Your task to perform on an android device: toggle priority inbox in the gmail app Image 0: 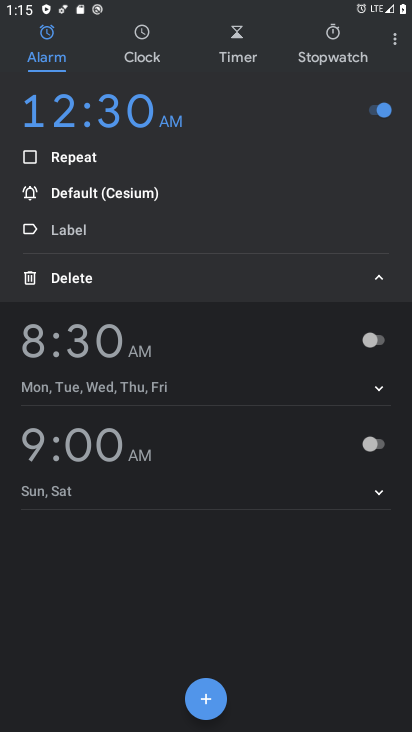
Step 0: press home button
Your task to perform on an android device: toggle priority inbox in the gmail app Image 1: 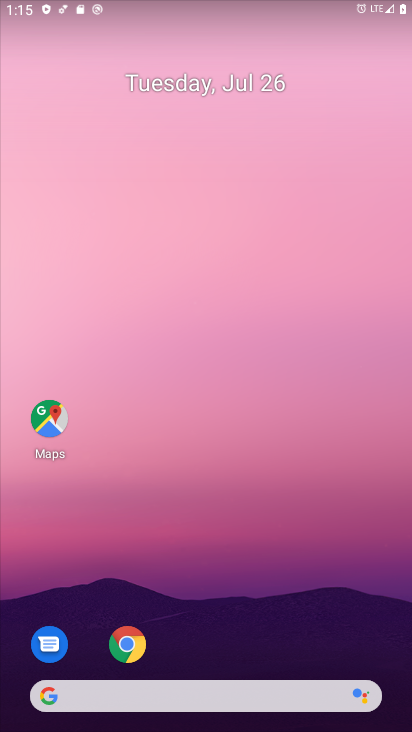
Step 1: drag from (180, 717) to (170, 195)
Your task to perform on an android device: toggle priority inbox in the gmail app Image 2: 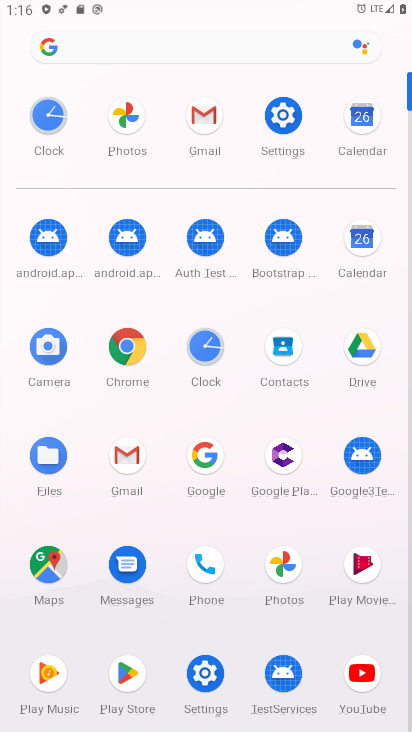
Step 2: click (207, 121)
Your task to perform on an android device: toggle priority inbox in the gmail app Image 3: 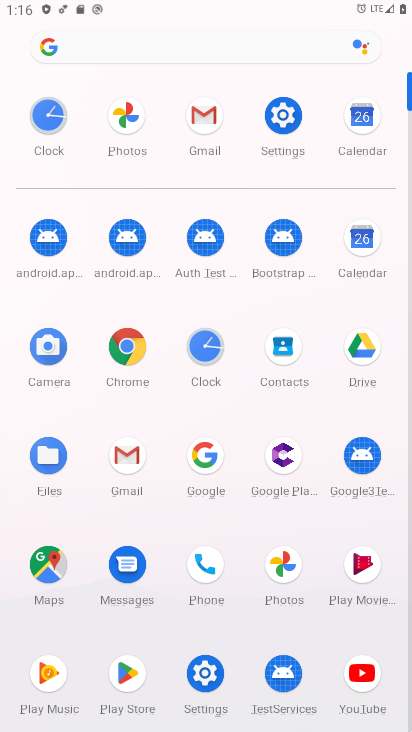
Step 3: click (207, 121)
Your task to perform on an android device: toggle priority inbox in the gmail app Image 4: 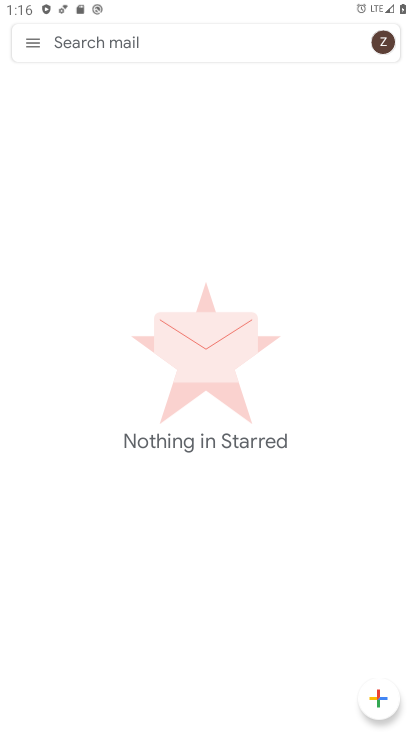
Step 4: click (34, 49)
Your task to perform on an android device: toggle priority inbox in the gmail app Image 5: 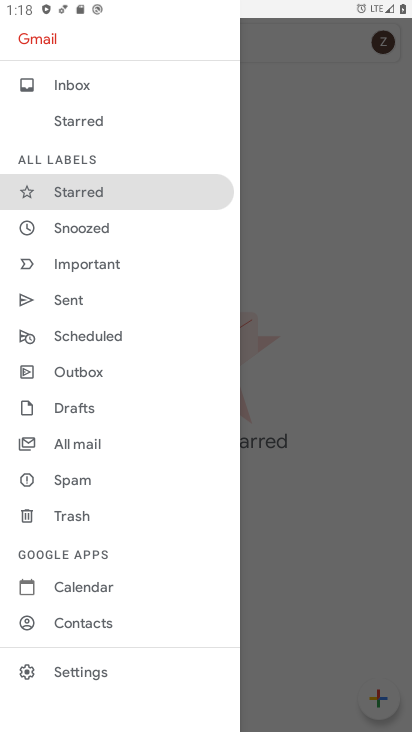
Step 5: click (44, 673)
Your task to perform on an android device: toggle priority inbox in the gmail app Image 6: 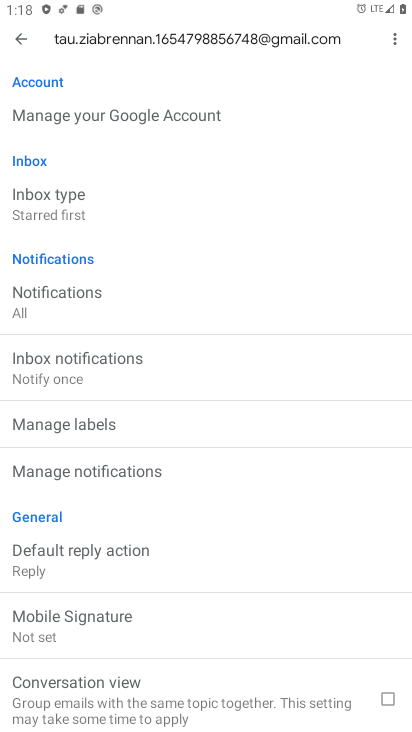
Step 6: click (65, 200)
Your task to perform on an android device: toggle priority inbox in the gmail app Image 7: 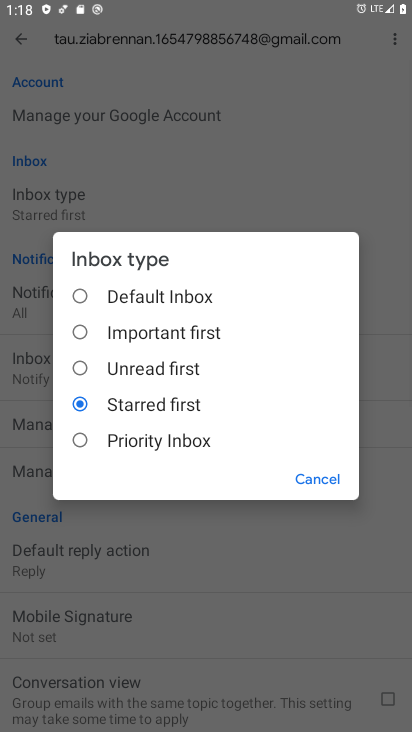
Step 7: click (149, 439)
Your task to perform on an android device: toggle priority inbox in the gmail app Image 8: 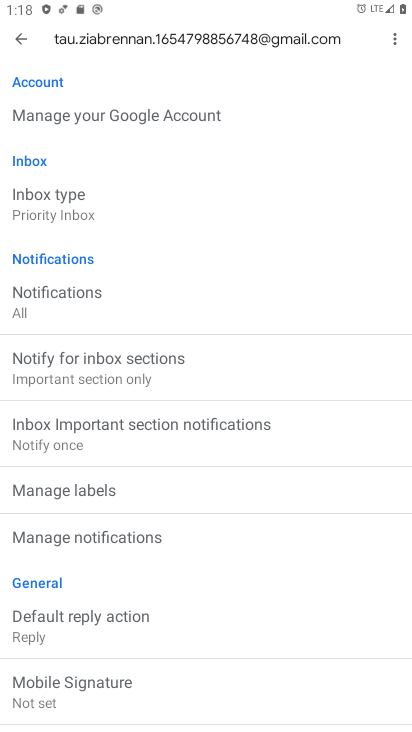
Step 8: click (35, 206)
Your task to perform on an android device: toggle priority inbox in the gmail app Image 9: 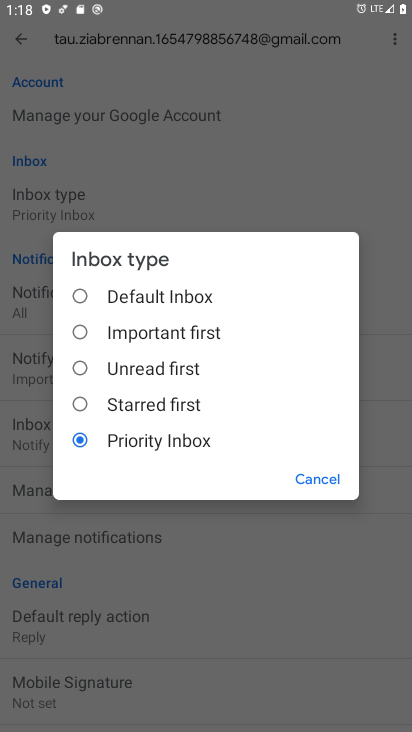
Step 9: click (160, 302)
Your task to perform on an android device: toggle priority inbox in the gmail app Image 10: 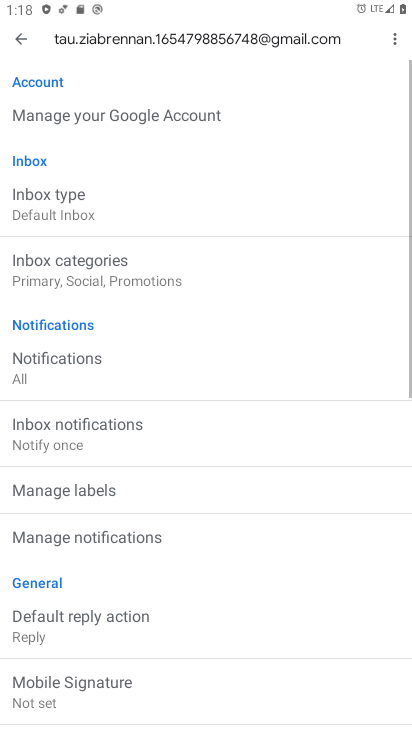
Step 10: task complete